Your task to perform on an android device: Open Google Maps and go to "Timeline" Image 0: 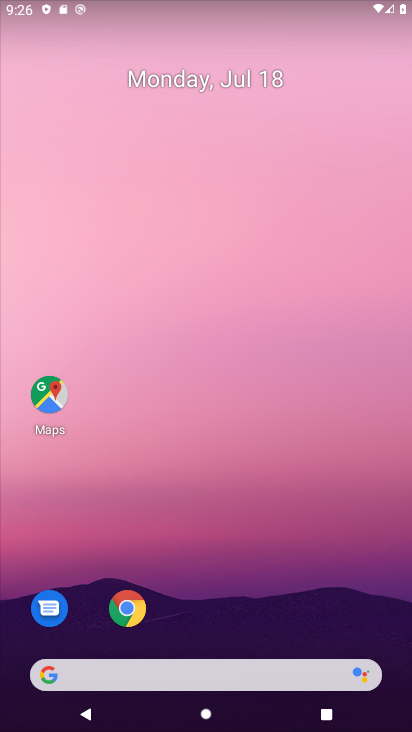
Step 0: drag from (216, 392) to (191, 207)
Your task to perform on an android device: Open Google Maps and go to "Timeline" Image 1: 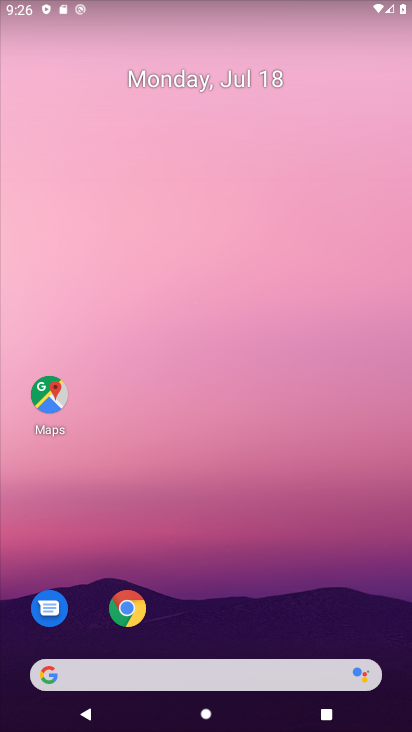
Step 1: drag from (260, 632) to (214, 64)
Your task to perform on an android device: Open Google Maps and go to "Timeline" Image 2: 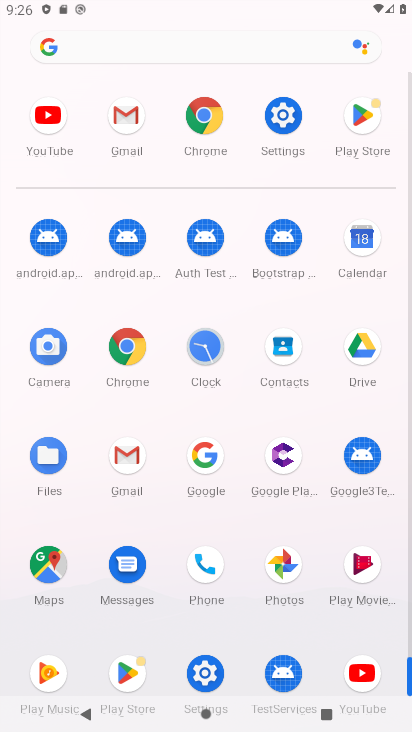
Step 2: click (62, 567)
Your task to perform on an android device: Open Google Maps and go to "Timeline" Image 3: 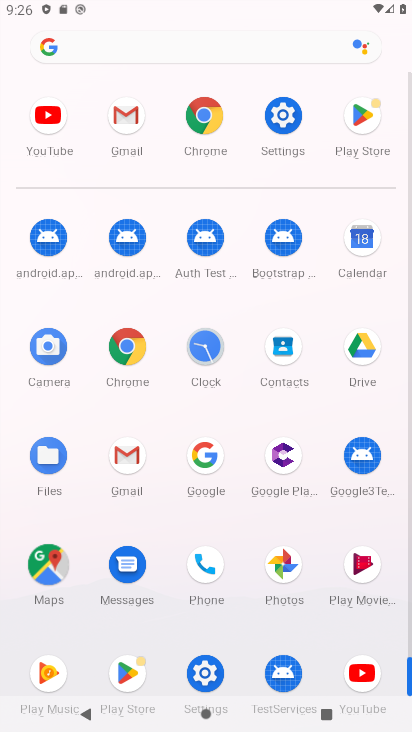
Step 3: click (55, 567)
Your task to perform on an android device: Open Google Maps and go to "Timeline" Image 4: 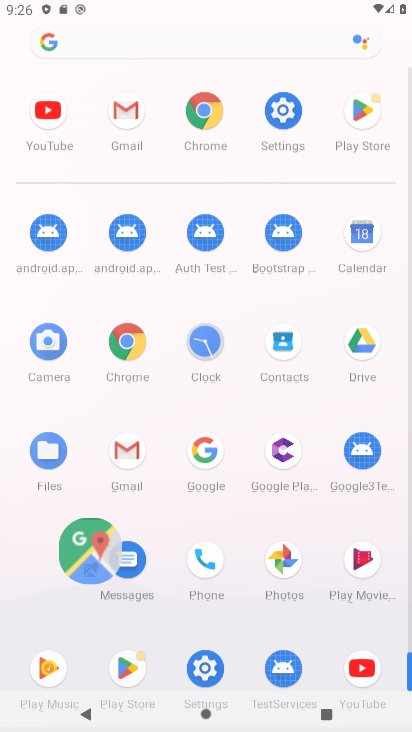
Step 4: click (55, 567)
Your task to perform on an android device: Open Google Maps and go to "Timeline" Image 5: 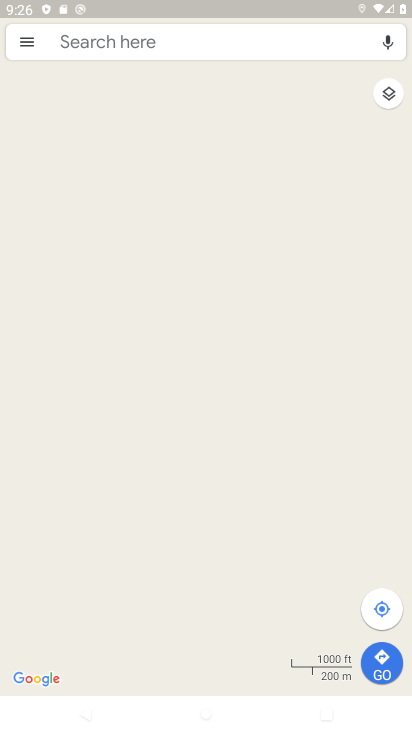
Step 5: click (24, 42)
Your task to perform on an android device: Open Google Maps and go to "Timeline" Image 6: 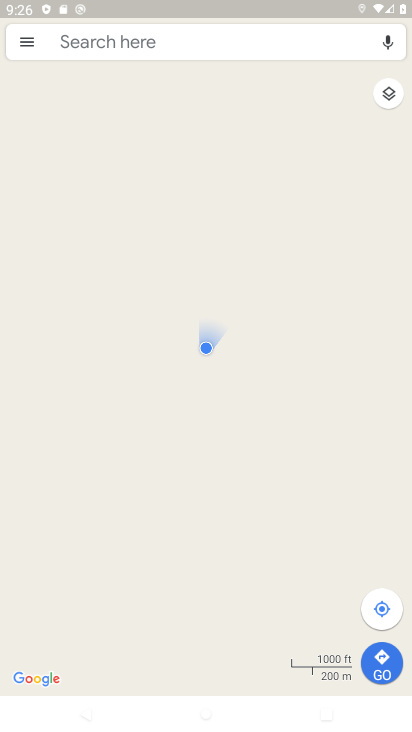
Step 6: click (24, 42)
Your task to perform on an android device: Open Google Maps and go to "Timeline" Image 7: 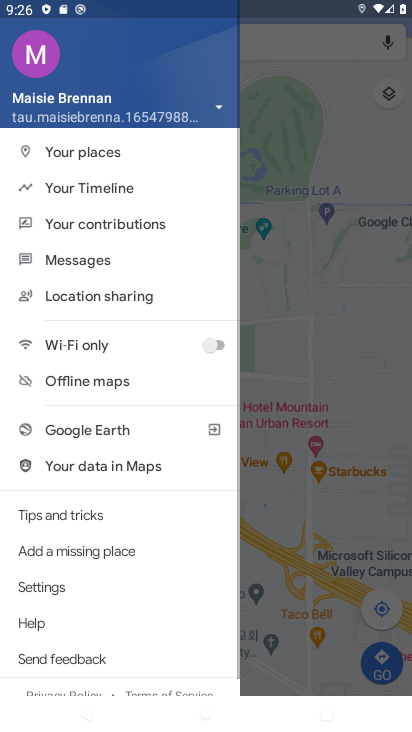
Step 7: click (29, 42)
Your task to perform on an android device: Open Google Maps and go to "Timeline" Image 8: 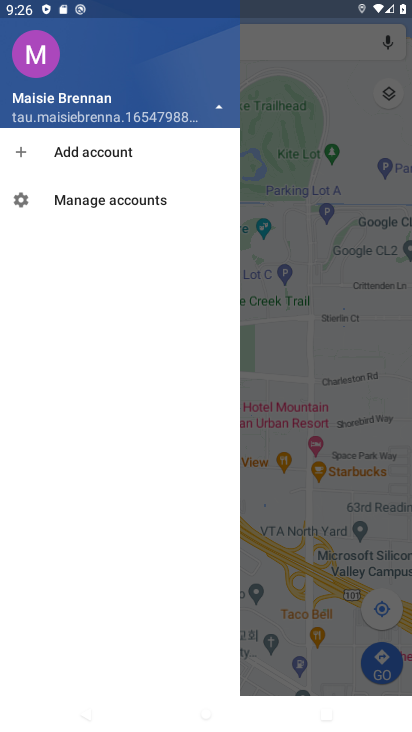
Step 8: click (97, 167)
Your task to perform on an android device: Open Google Maps and go to "Timeline" Image 9: 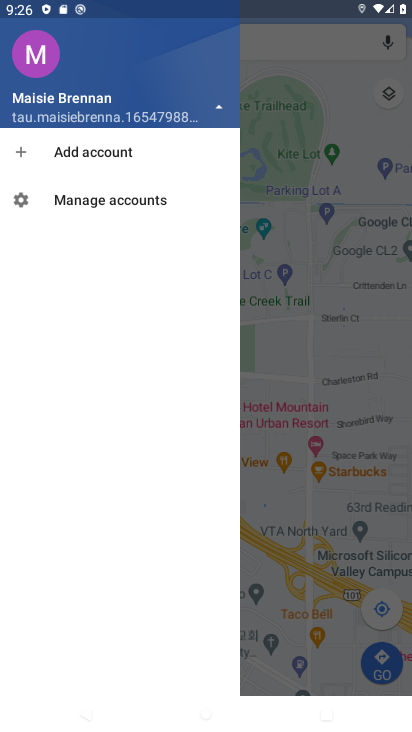
Step 9: click (100, 186)
Your task to perform on an android device: Open Google Maps and go to "Timeline" Image 10: 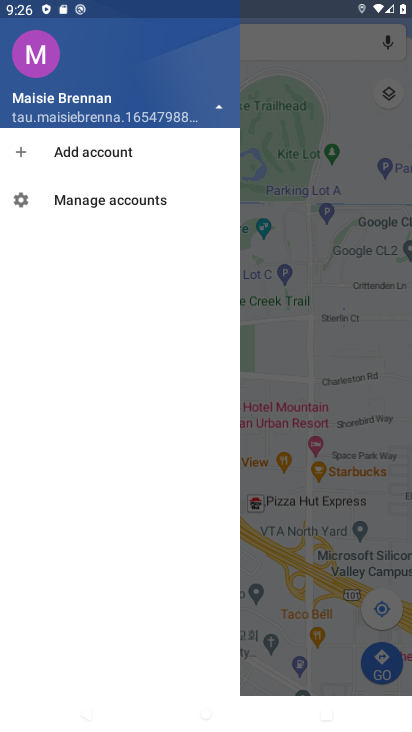
Step 10: click (100, 186)
Your task to perform on an android device: Open Google Maps and go to "Timeline" Image 11: 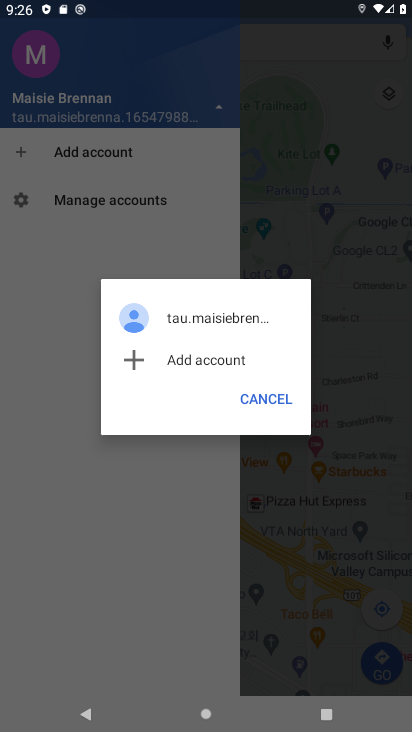
Step 11: click (268, 389)
Your task to perform on an android device: Open Google Maps and go to "Timeline" Image 12: 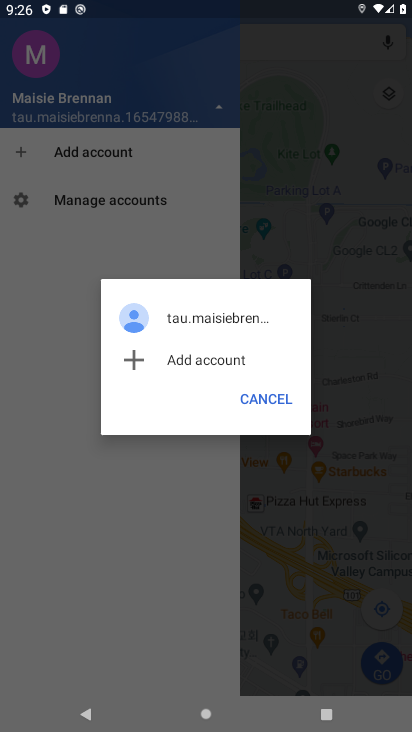
Step 12: click (268, 394)
Your task to perform on an android device: Open Google Maps and go to "Timeline" Image 13: 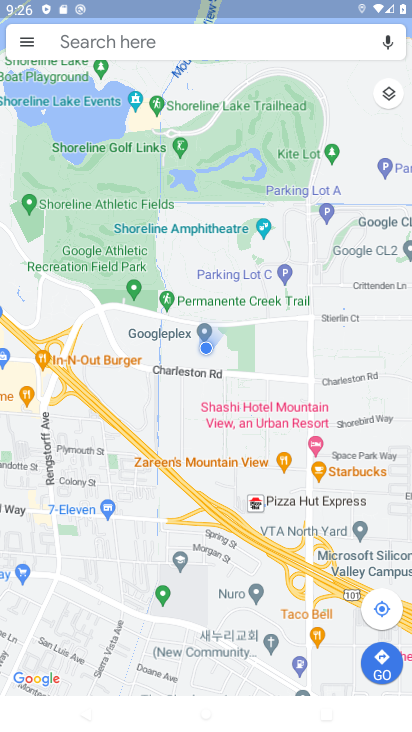
Step 13: task complete